Your task to perform on an android device: Toggle the flashlight Image 0: 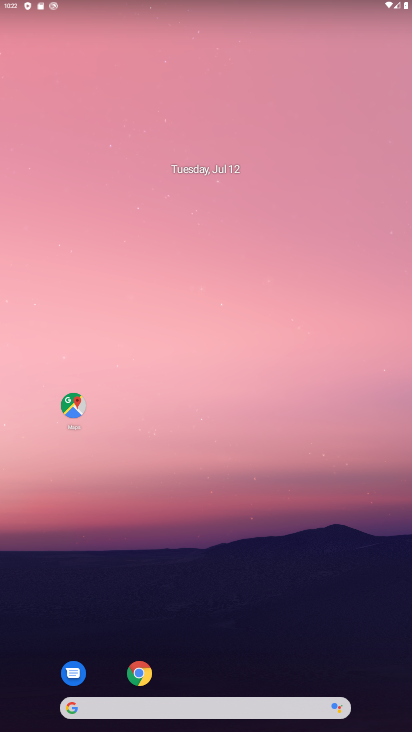
Step 0: drag from (298, 534) to (296, 69)
Your task to perform on an android device: Toggle the flashlight Image 1: 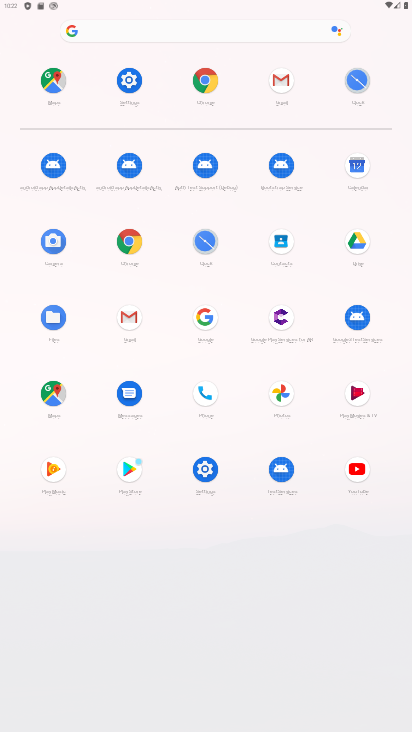
Step 1: click (125, 84)
Your task to perform on an android device: Toggle the flashlight Image 2: 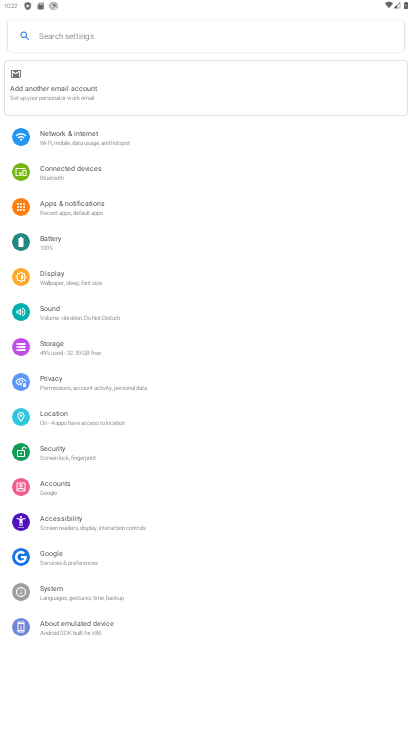
Step 2: click (58, 282)
Your task to perform on an android device: Toggle the flashlight Image 3: 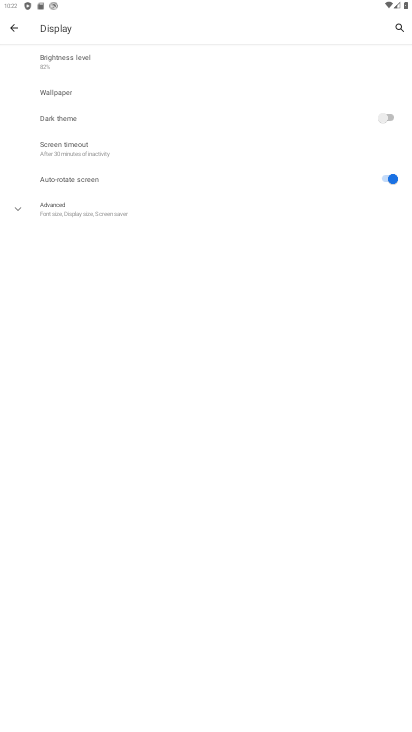
Step 3: task complete